Your task to perform on an android device: Open eBay Image 0: 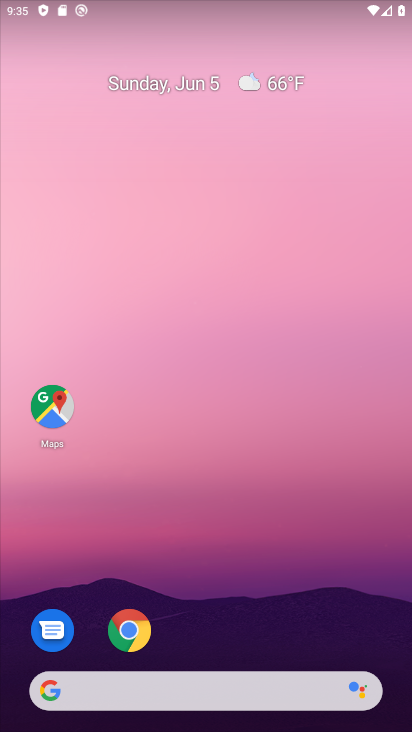
Step 0: click (129, 637)
Your task to perform on an android device: Open eBay Image 1: 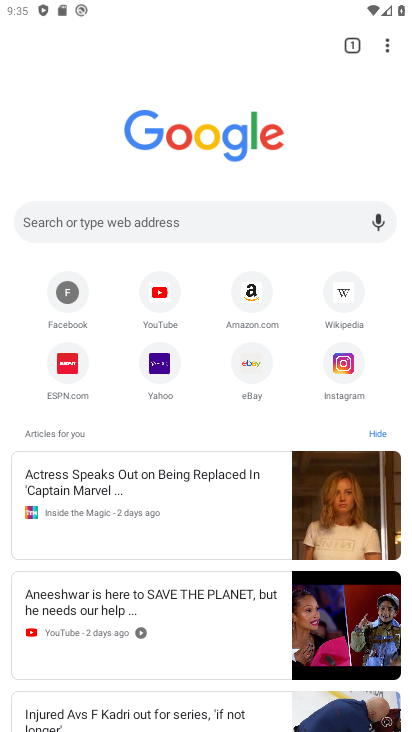
Step 1: click (251, 366)
Your task to perform on an android device: Open eBay Image 2: 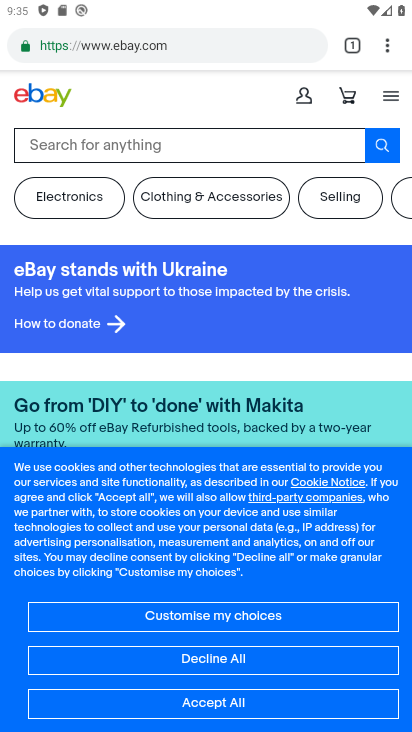
Step 2: task complete